Your task to perform on an android device: turn off location Image 0: 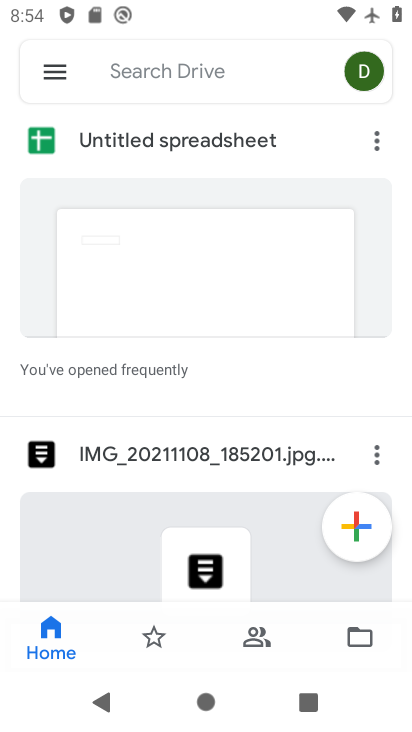
Step 0: press home button
Your task to perform on an android device: turn off location Image 1: 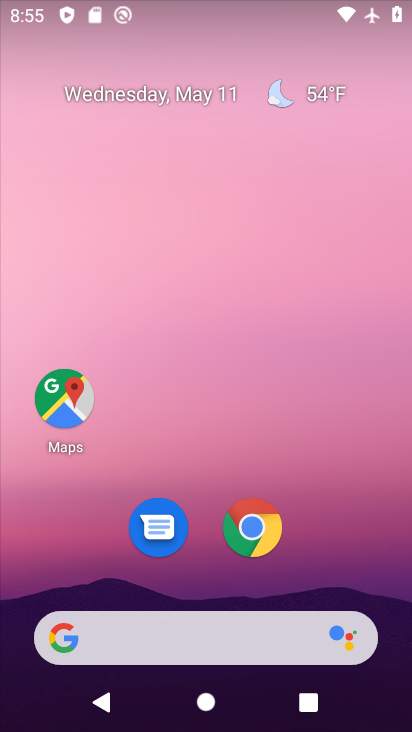
Step 1: drag from (253, 573) to (300, 191)
Your task to perform on an android device: turn off location Image 2: 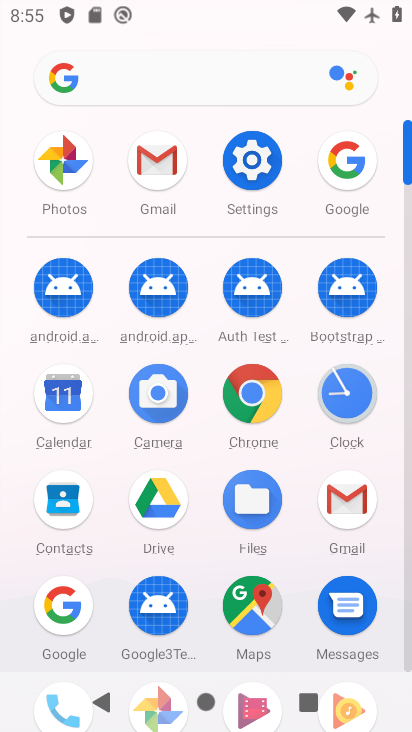
Step 2: click (259, 172)
Your task to perform on an android device: turn off location Image 3: 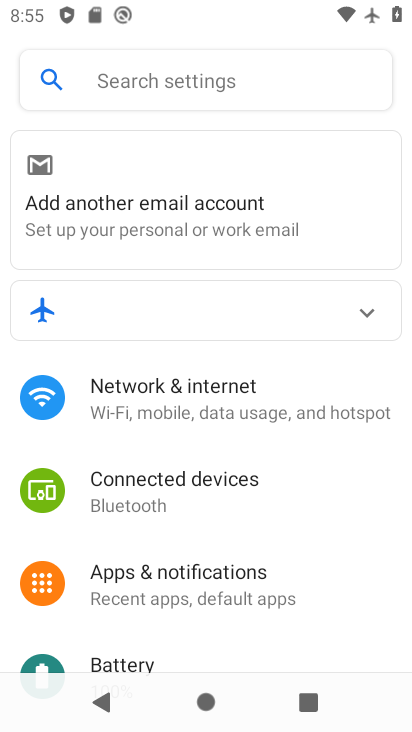
Step 3: drag from (259, 614) to (259, 284)
Your task to perform on an android device: turn off location Image 4: 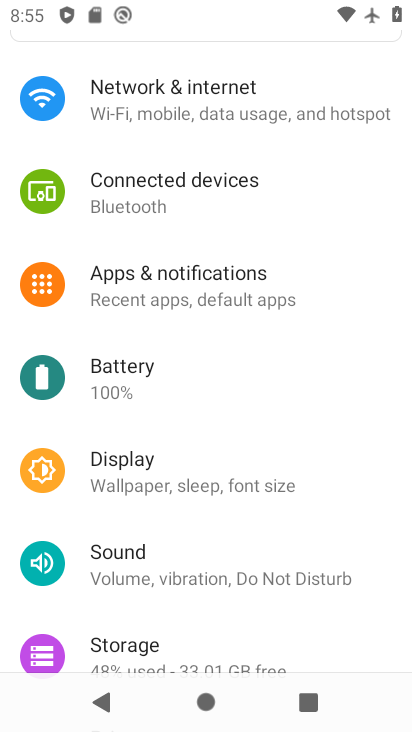
Step 4: drag from (269, 558) to (225, 213)
Your task to perform on an android device: turn off location Image 5: 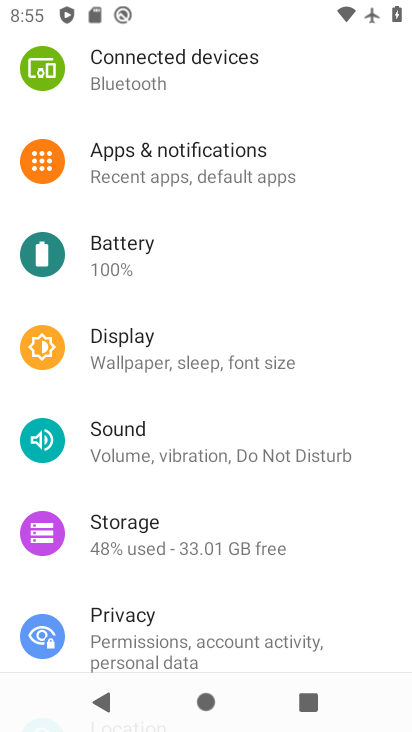
Step 5: drag from (234, 588) to (239, 194)
Your task to perform on an android device: turn off location Image 6: 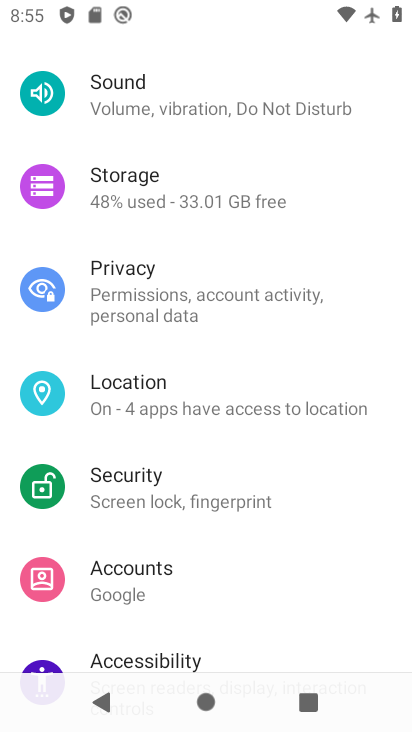
Step 6: click (158, 406)
Your task to perform on an android device: turn off location Image 7: 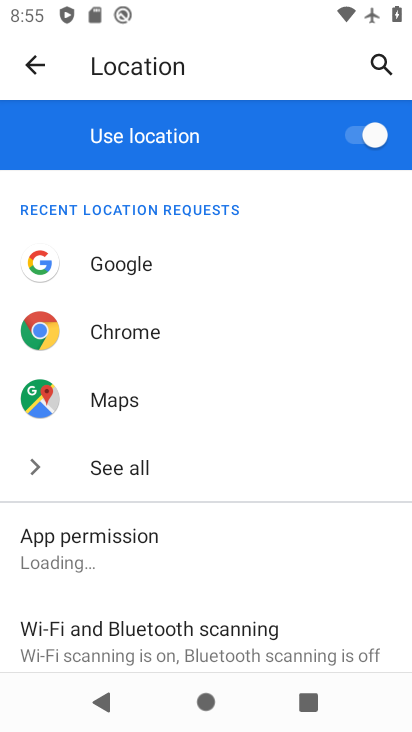
Step 7: click (353, 134)
Your task to perform on an android device: turn off location Image 8: 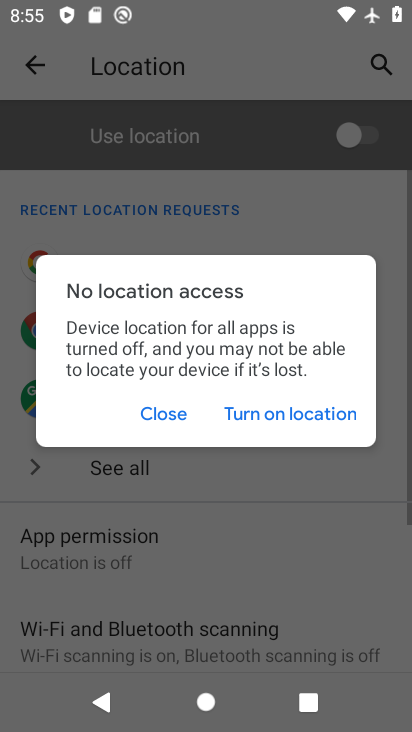
Step 8: task complete